Your task to perform on an android device: Open the calendar app, open the side menu, and click the "Day" option Image 0: 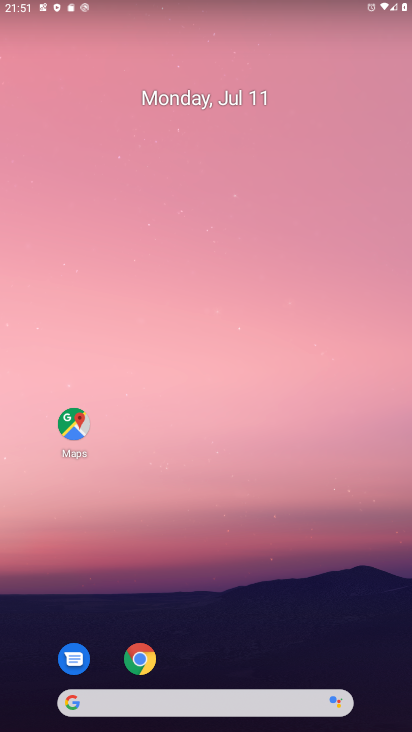
Step 0: drag from (198, 616) to (245, 99)
Your task to perform on an android device: Open the calendar app, open the side menu, and click the "Day" option Image 1: 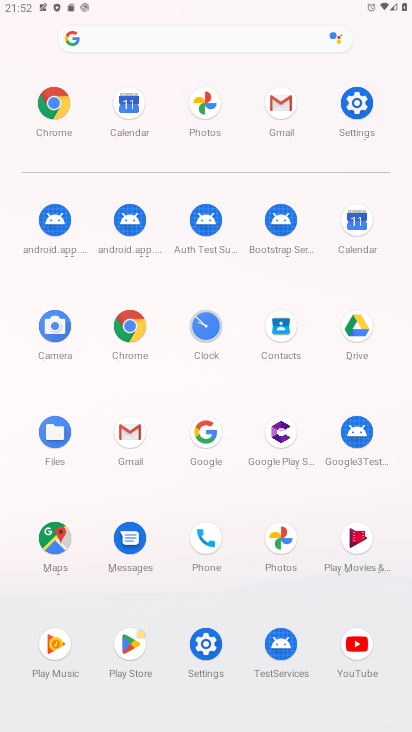
Step 1: click (358, 222)
Your task to perform on an android device: Open the calendar app, open the side menu, and click the "Day" option Image 2: 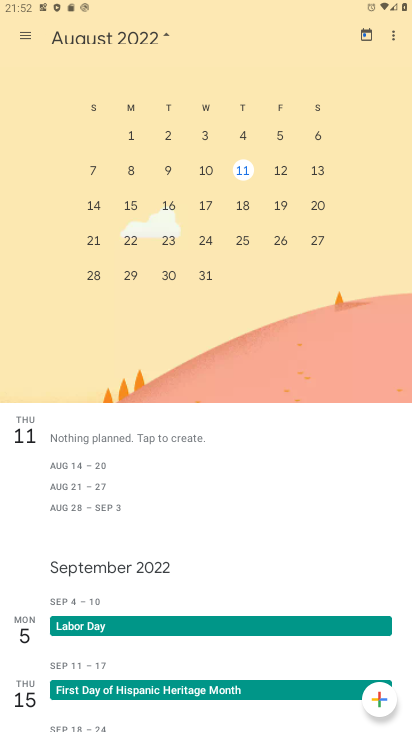
Step 2: drag from (175, 650) to (232, 339)
Your task to perform on an android device: Open the calendar app, open the side menu, and click the "Day" option Image 3: 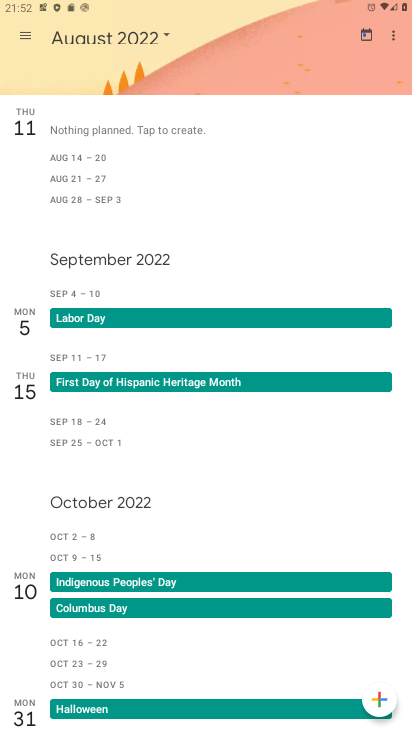
Step 3: drag from (153, 177) to (384, 693)
Your task to perform on an android device: Open the calendar app, open the side menu, and click the "Day" option Image 4: 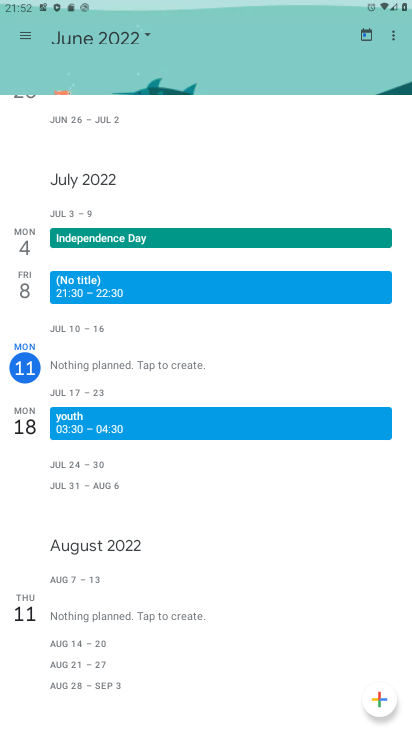
Step 4: drag from (265, 653) to (224, 226)
Your task to perform on an android device: Open the calendar app, open the side menu, and click the "Day" option Image 5: 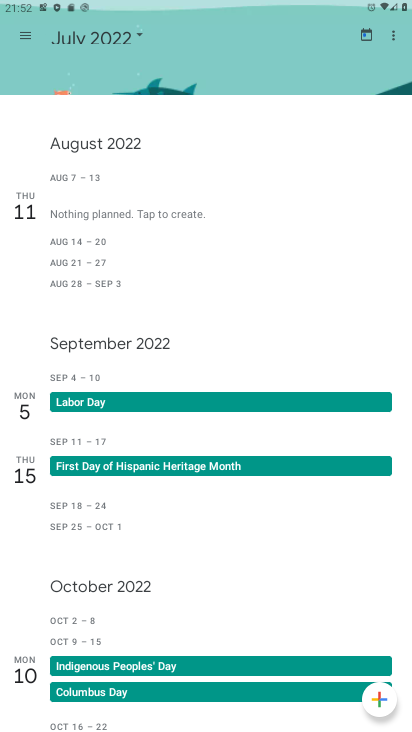
Step 5: drag from (214, 225) to (270, 631)
Your task to perform on an android device: Open the calendar app, open the side menu, and click the "Day" option Image 6: 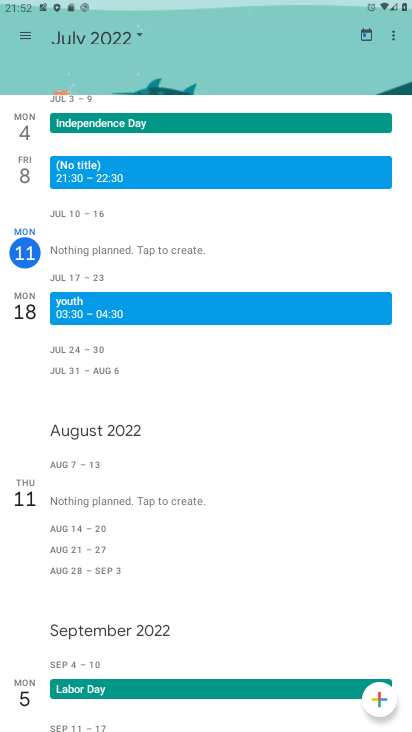
Step 6: click (24, 39)
Your task to perform on an android device: Open the calendar app, open the side menu, and click the "Day" option Image 7: 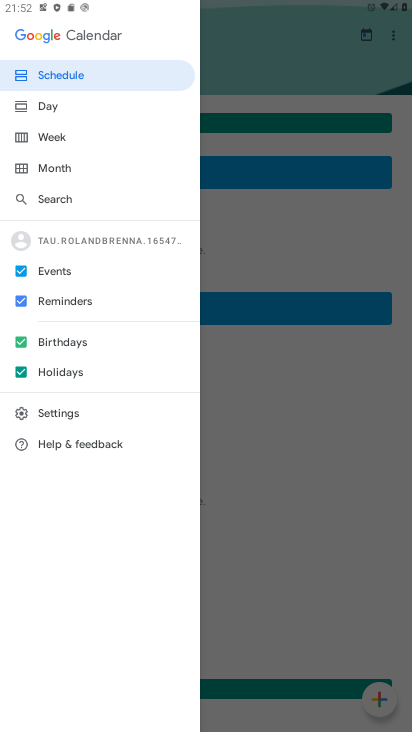
Step 7: click (63, 117)
Your task to perform on an android device: Open the calendar app, open the side menu, and click the "Day" option Image 8: 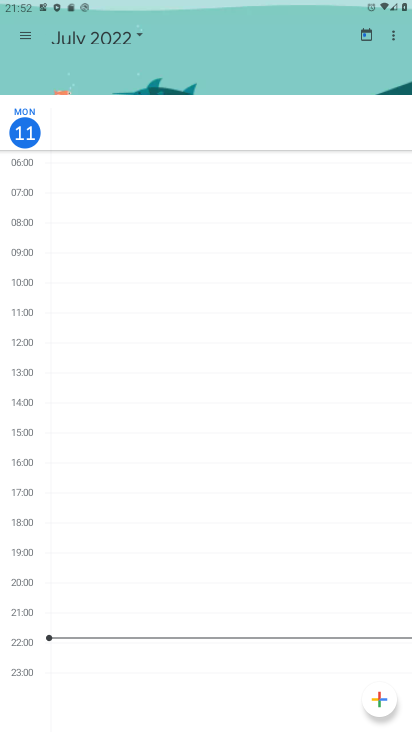
Step 8: drag from (170, 349) to (189, 103)
Your task to perform on an android device: Open the calendar app, open the side menu, and click the "Day" option Image 9: 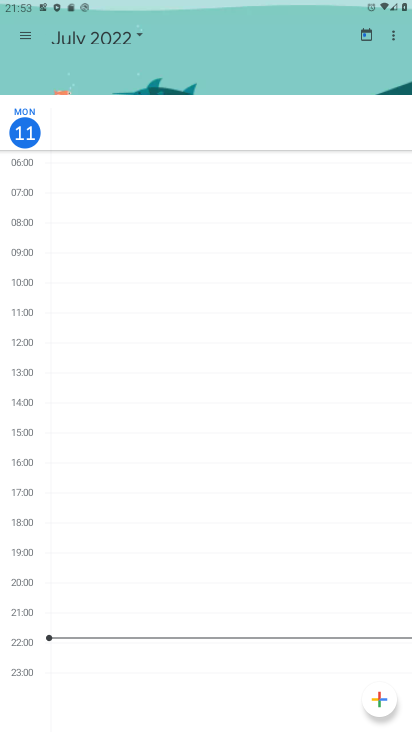
Step 9: drag from (192, 451) to (241, 527)
Your task to perform on an android device: Open the calendar app, open the side menu, and click the "Day" option Image 10: 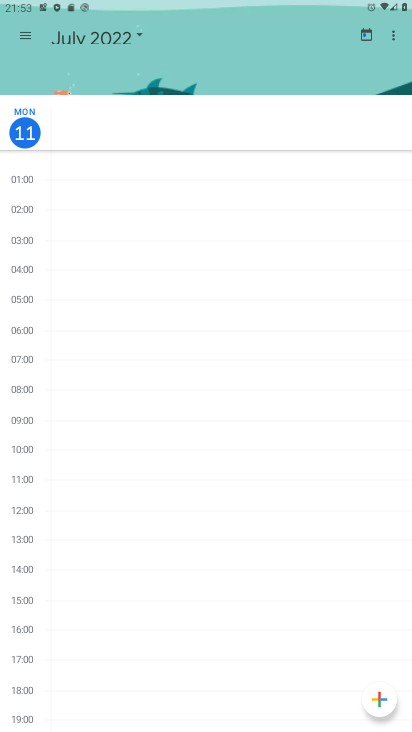
Step 10: click (31, 39)
Your task to perform on an android device: Open the calendar app, open the side menu, and click the "Day" option Image 11: 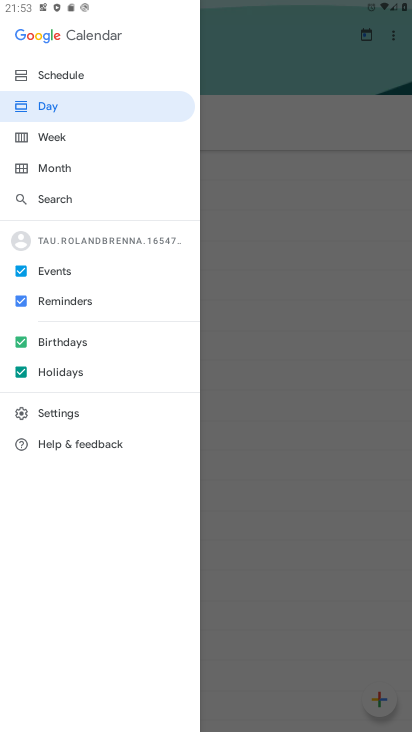
Step 11: click (62, 114)
Your task to perform on an android device: Open the calendar app, open the side menu, and click the "Day" option Image 12: 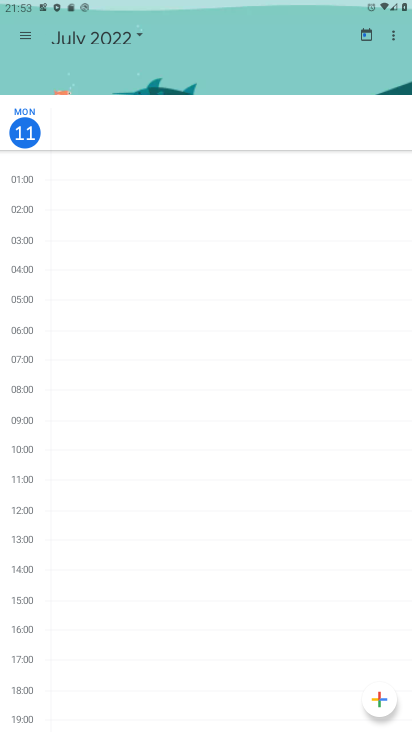
Step 12: task complete